Your task to perform on an android device: Open Yahoo.com Image 0: 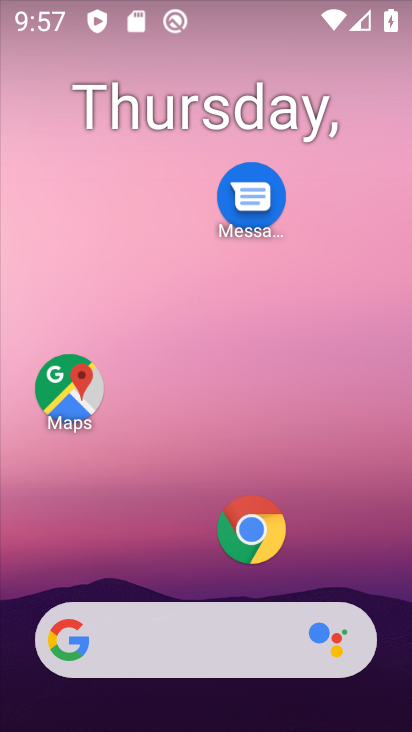
Step 0: click (256, 530)
Your task to perform on an android device: Open Yahoo.com Image 1: 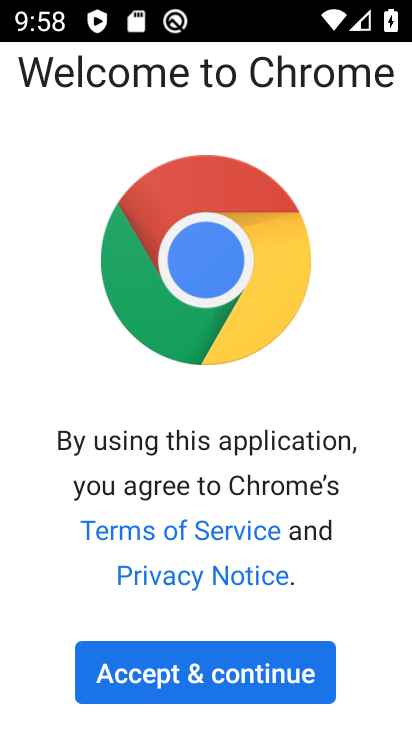
Step 1: click (198, 675)
Your task to perform on an android device: Open Yahoo.com Image 2: 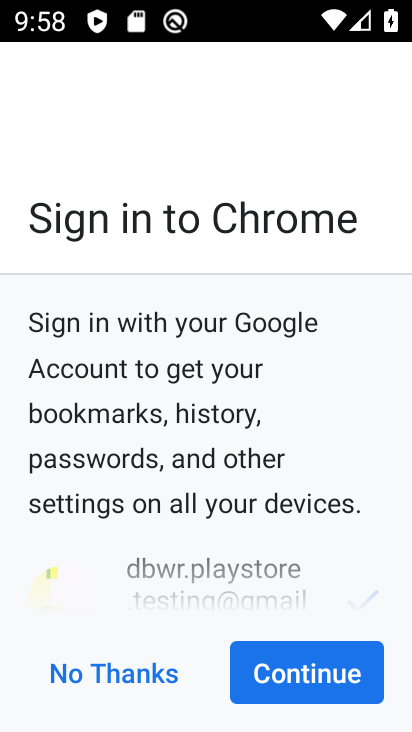
Step 2: click (285, 670)
Your task to perform on an android device: Open Yahoo.com Image 3: 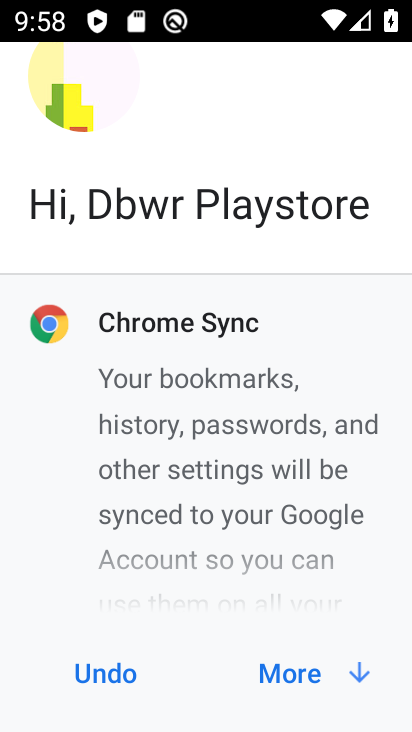
Step 3: click (285, 670)
Your task to perform on an android device: Open Yahoo.com Image 4: 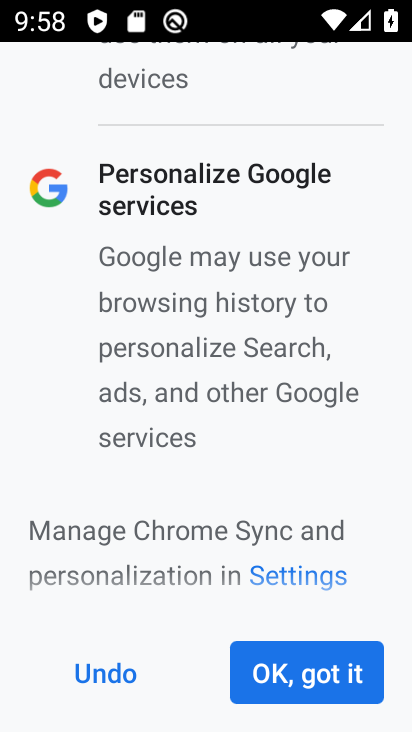
Step 4: click (285, 670)
Your task to perform on an android device: Open Yahoo.com Image 5: 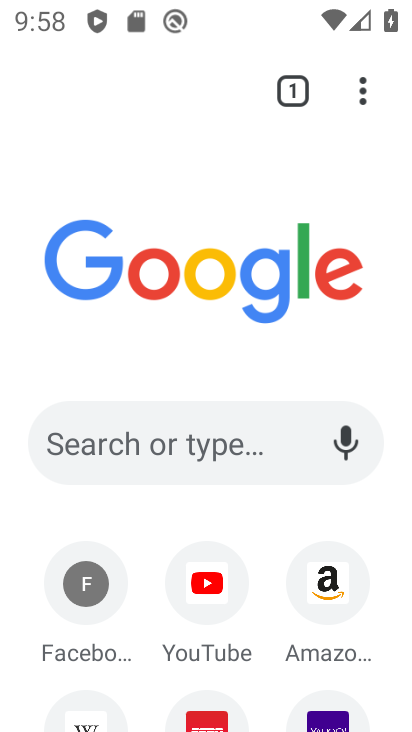
Step 5: click (226, 448)
Your task to perform on an android device: Open Yahoo.com Image 6: 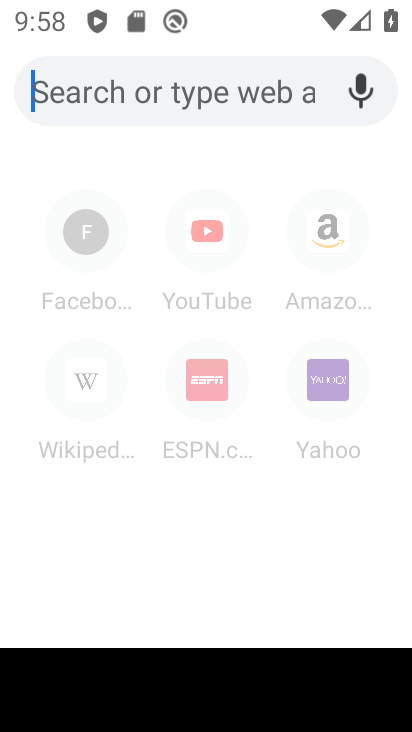
Step 6: type "Yahoo.com"
Your task to perform on an android device: Open Yahoo.com Image 7: 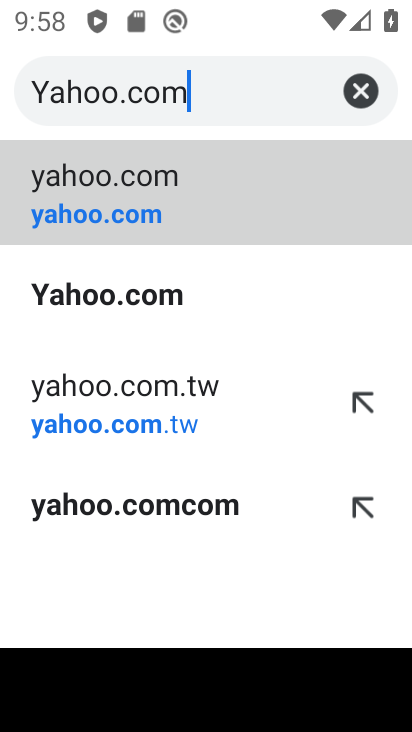
Step 7: click (170, 291)
Your task to perform on an android device: Open Yahoo.com Image 8: 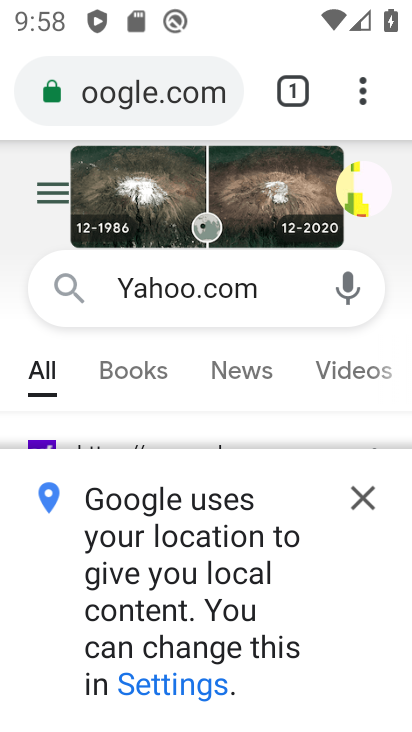
Step 8: click (365, 493)
Your task to perform on an android device: Open Yahoo.com Image 9: 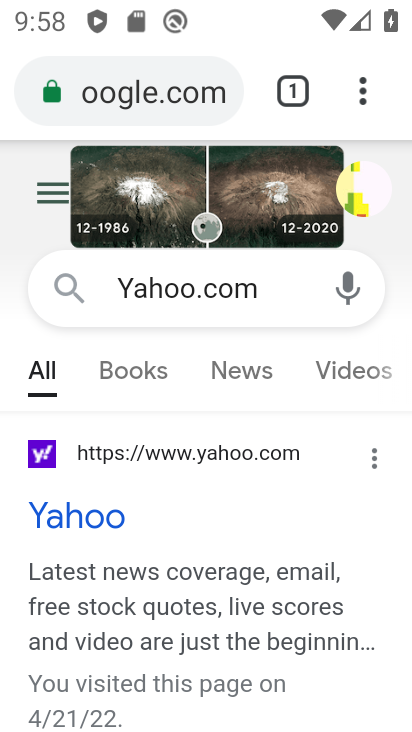
Step 9: task complete